Your task to perform on an android device: Open Google Maps and go to "Timeline" Image 0: 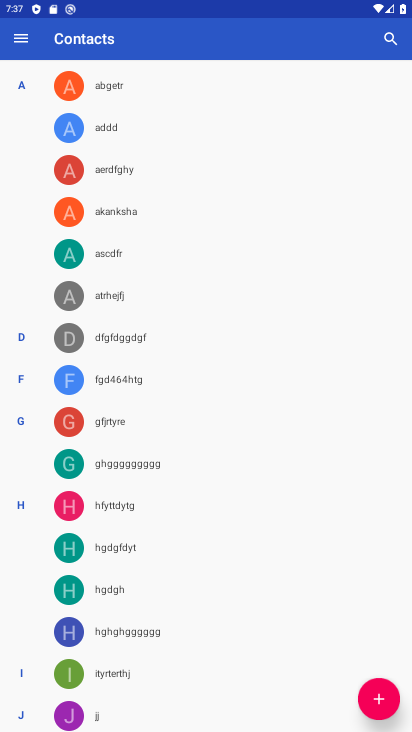
Step 0: press back button
Your task to perform on an android device: Open Google Maps and go to "Timeline" Image 1: 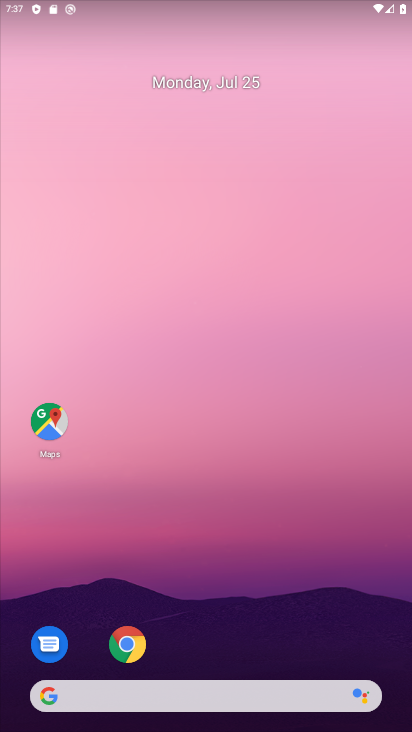
Step 1: click (50, 440)
Your task to perform on an android device: Open Google Maps and go to "Timeline" Image 2: 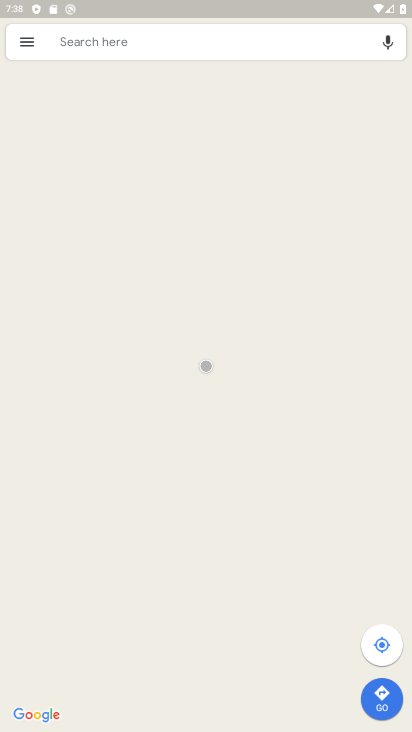
Step 2: click (18, 43)
Your task to perform on an android device: Open Google Maps and go to "Timeline" Image 3: 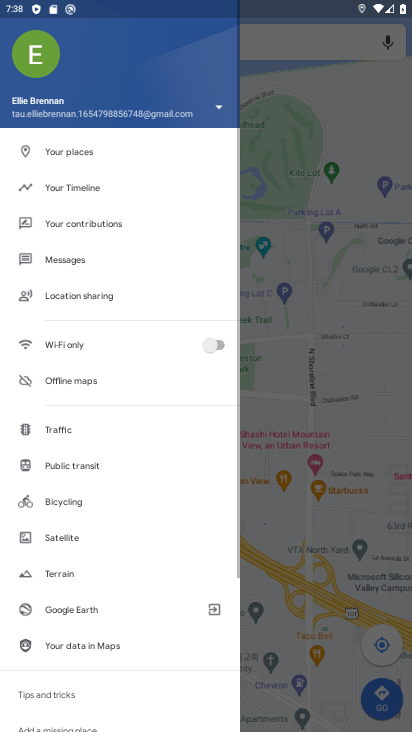
Step 3: click (63, 183)
Your task to perform on an android device: Open Google Maps and go to "Timeline" Image 4: 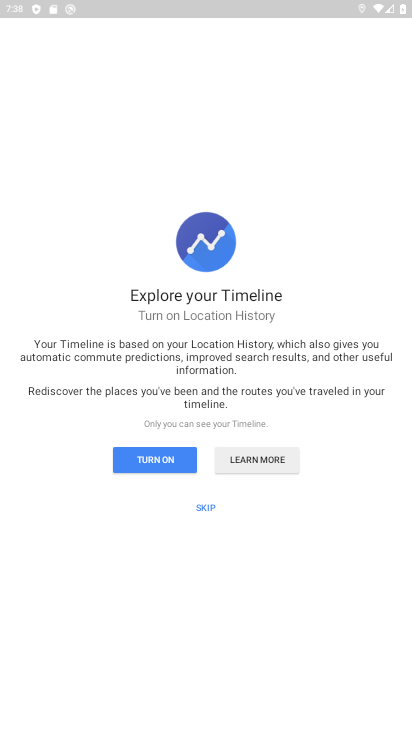
Step 4: click (165, 469)
Your task to perform on an android device: Open Google Maps and go to "Timeline" Image 5: 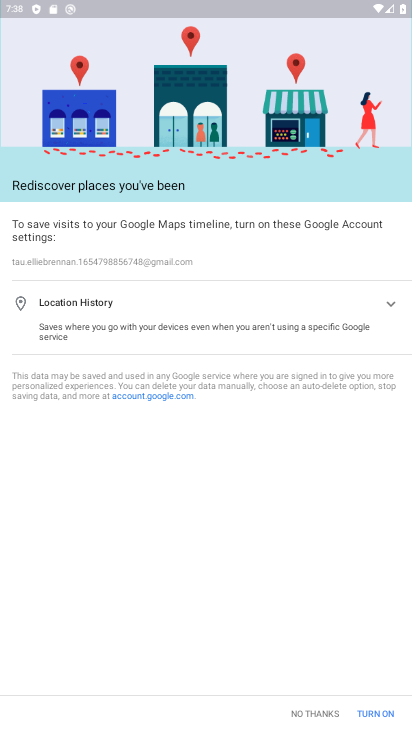
Step 5: task complete